Your task to perform on an android device: choose inbox layout in the gmail app Image 0: 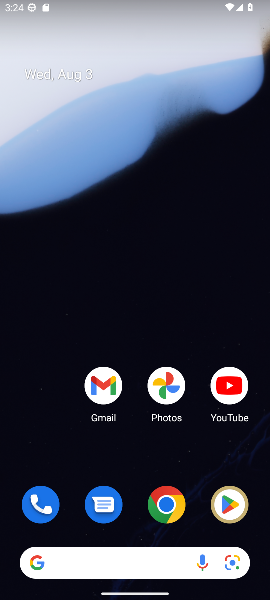
Step 0: drag from (129, 521) to (140, 5)
Your task to perform on an android device: choose inbox layout in the gmail app Image 1: 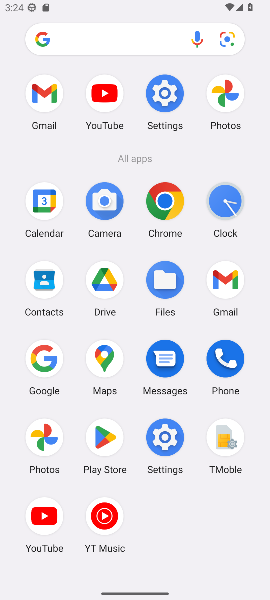
Step 1: click (235, 285)
Your task to perform on an android device: choose inbox layout in the gmail app Image 2: 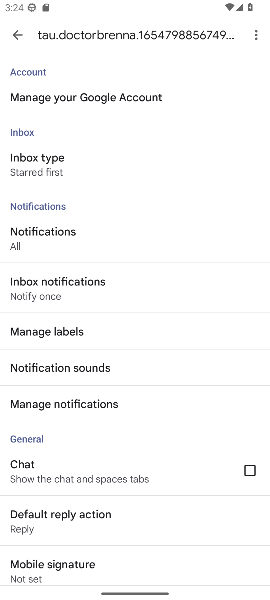
Step 2: click (46, 171)
Your task to perform on an android device: choose inbox layout in the gmail app Image 3: 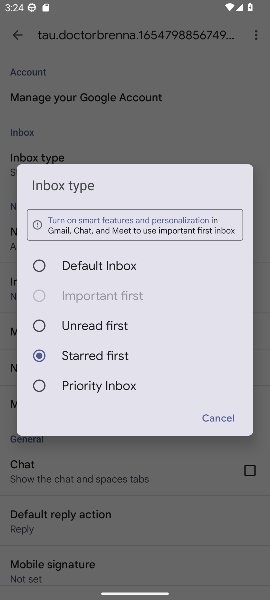
Step 3: click (79, 264)
Your task to perform on an android device: choose inbox layout in the gmail app Image 4: 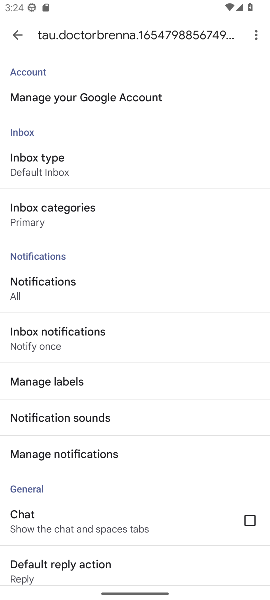
Step 4: task complete